Your task to perform on an android device: turn on bluetooth scan Image 0: 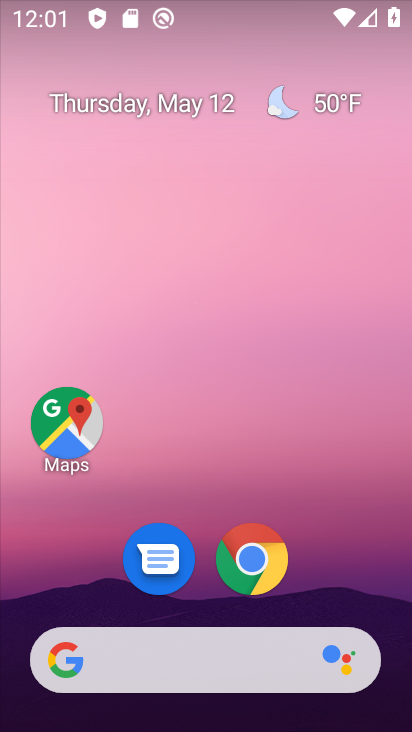
Step 0: drag from (315, 573) to (280, 115)
Your task to perform on an android device: turn on bluetooth scan Image 1: 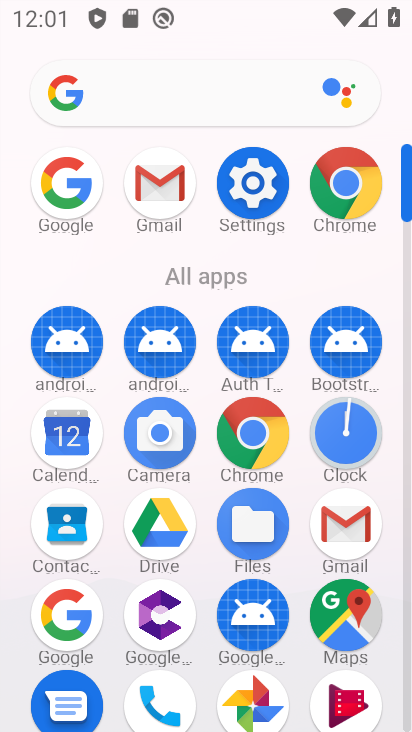
Step 1: click (253, 189)
Your task to perform on an android device: turn on bluetooth scan Image 2: 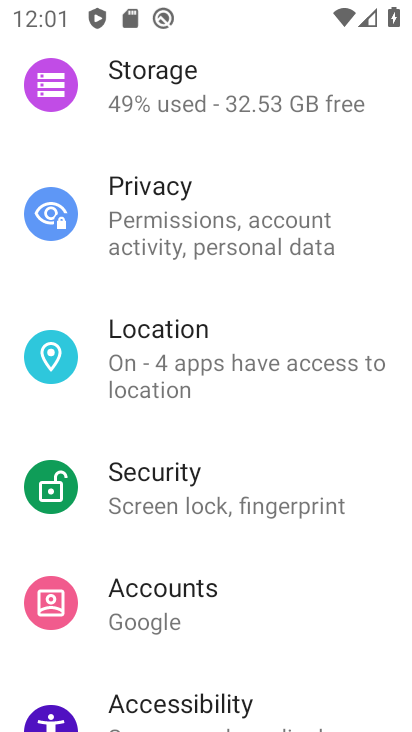
Step 2: drag from (224, 543) to (231, 263)
Your task to perform on an android device: turn on bluetooth scan Image 3: 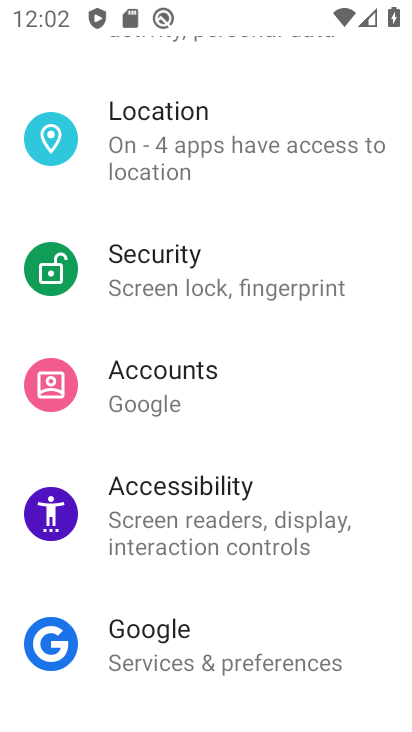
Step 3: click (205, 178)
Your task to perform on an android device: turn on bluetooth scan Image 4: 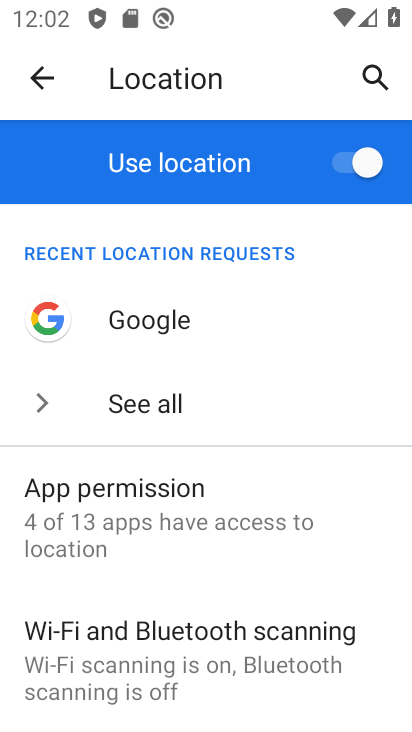
Step 4: drag from (185, 601) to (223, 369)
Your task to perform on an android device: turn on bluetooth scan Image 5: 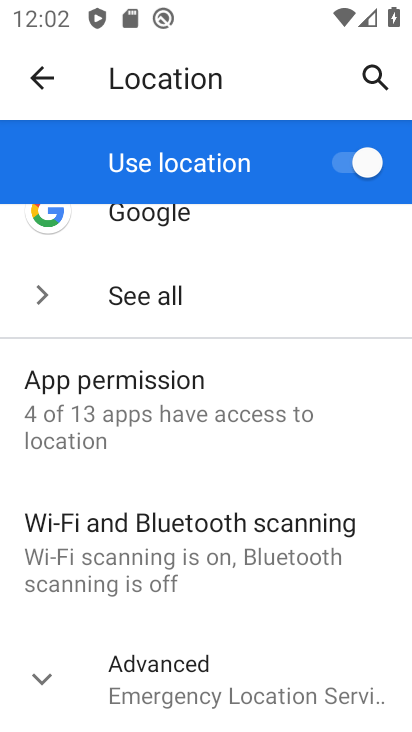
Step 5: drag from (231, 602) to (251, 337)
Your task to perform on an android device: turn on bluetooth scan Image 6: 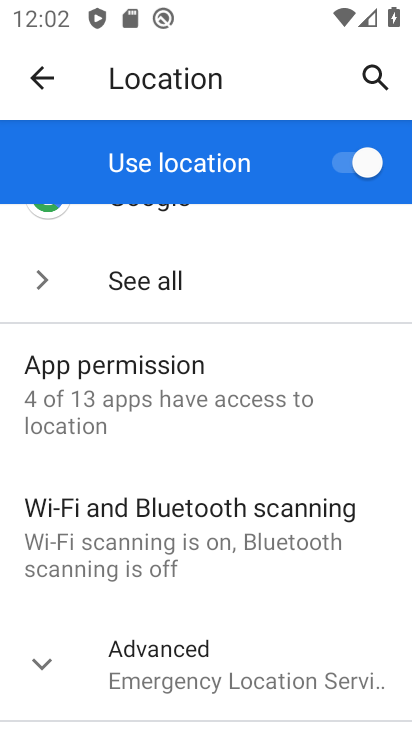
Step 6: click (196, 535)
Your task to perform on an android device: turn on bluetooth scan Image 7: 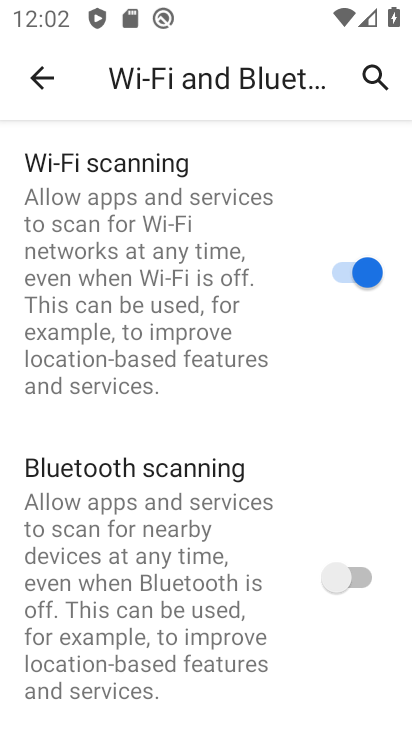
Step 7: click (353, 579)
Your task to perform on an android device: turn on bluetooth scan Image 8: 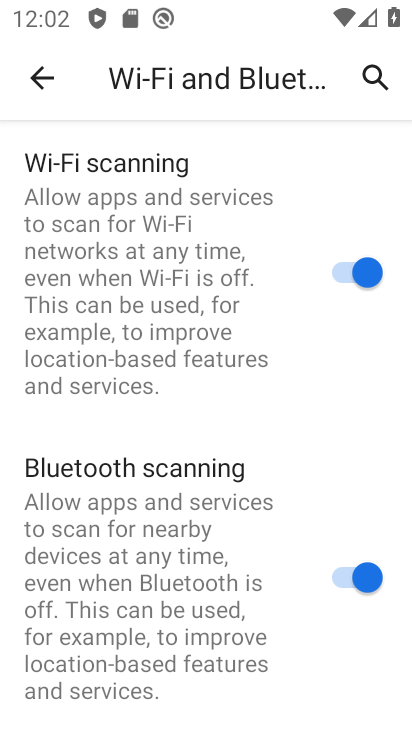
Step 8: task complete